Your task to perform on an android device: Open sound settings Image 0: 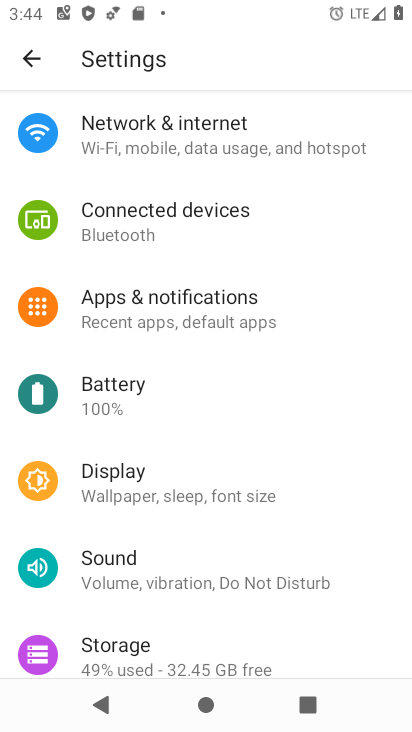
Step 0: click (195, 573)
Your task to perform on an android device: Open sound settings Image 1: 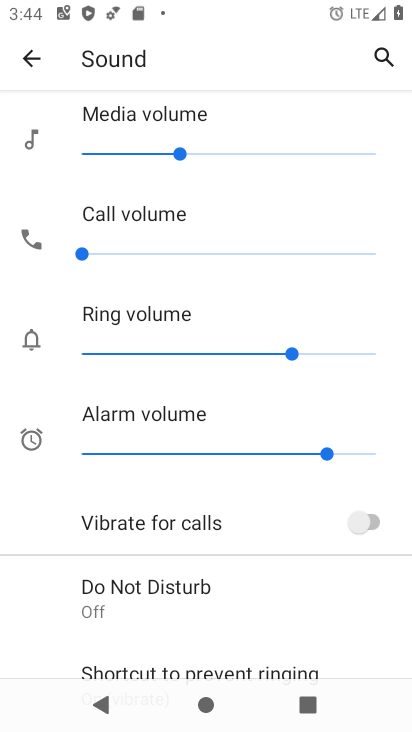
Step 1: task complete